Your task to perform on an android device: open app "TextNow: Call + Text Unlimited" (install if not already installed) and enter user name: "stoke@yahoo.com" and password: "prompted" Image 0: 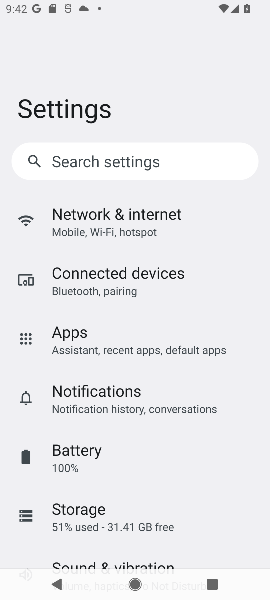
Step 0: press home button
Your task to perform on an android device: open app "TextNow: Call + Text Unlimited" (install if not already installed) and enter user name: "stoke@yahoo.com" and password: "prompted" Image 1: 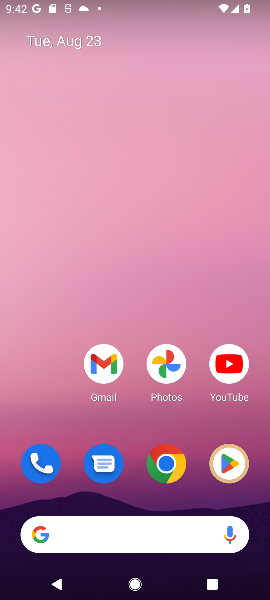
Step 1: click (225, 462)
Your task to perform on an android device: open app "TextNow: Call + Text Unlimited" (install if not already installed) and enter user name: "stoke@yahoo.com" and password: "prompted" Image 2: 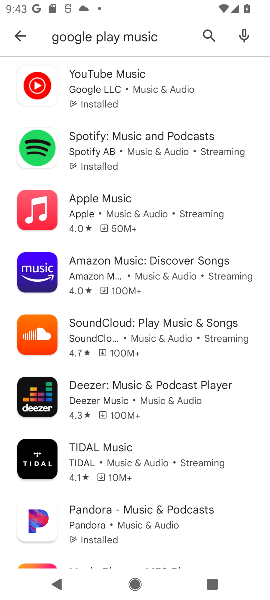
Step 2: click (198, 34)
Your task to perform on an android device: open app "TextNow: Call + Text Unlimited" (install if not already installed) and enter user name: "stoke@yahoo.com" and password: "prompted" Image 3: 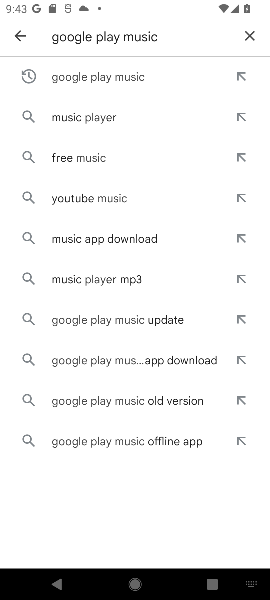
Step 3: click (245, 36)
Your task to perform on an android device: open app "TextNow: Call + Text Unlimited" (install if not already installed) and enter user name: "stoke@yahoo.com" and password: "prompted" Image 4: 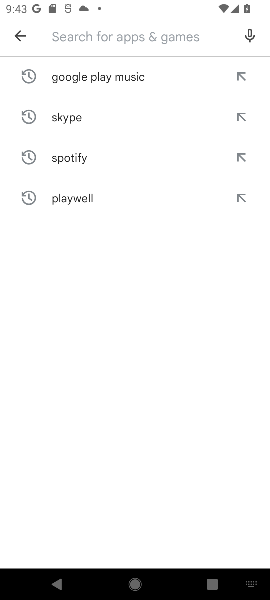
Step 4: type "TextNow: Call + Text Unlimited"
Your task to perform on an android device: open app "TextNow: Call + Text Unlimited" (install if not already installed) and enter user name: "stoke@yahoo.com" and password: "prompted" Image 5: 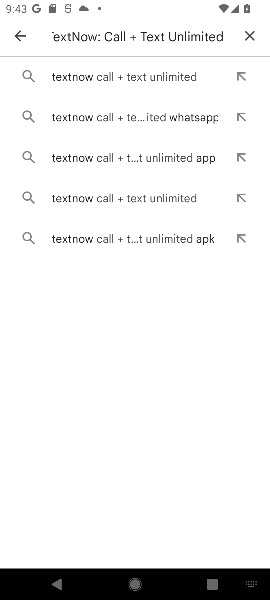
Step 5: click (92, 75)
Your task to perform on an android device: open app "TextNow: Call + Text Unlimited" (install if not already installed) and enter user name: "stoke@yahoo.com" and password: "prompted" Image 6: 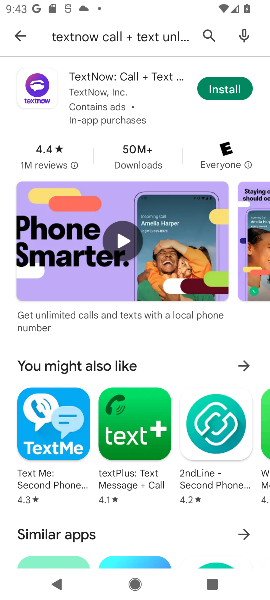
Step 6: click (222, 85)
Your task to perform on an android device: open app "TextNow: Call + Text Unlimited" (install if not already installed) and enter user name: "stoke@yahoo.com" and password: "prompted" Image 7: 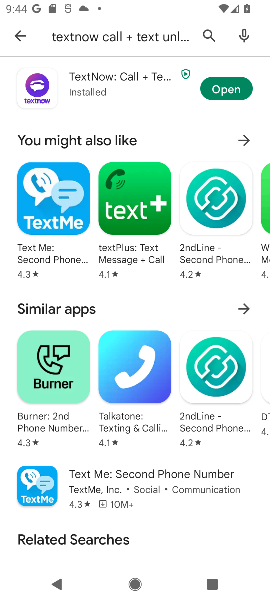
Step 7: click (229, 84)
Your task to perform on an android device: open app "TextNow: Call + Text Unlimited" (install if not already installed) and enter user name: "stoke@yahoo.com" and password: "prompted" Image 8: 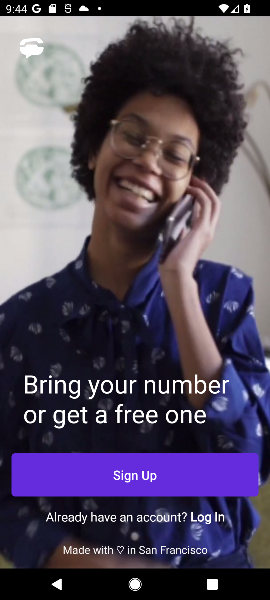
Step 8: click (205, 511)
Your task to perform on an android device: open app "TextNow: Call + Text Unlimited" (install if not already installed) and enter user name: "stoke@yahoo.com" and password: "prompted" Image 9: 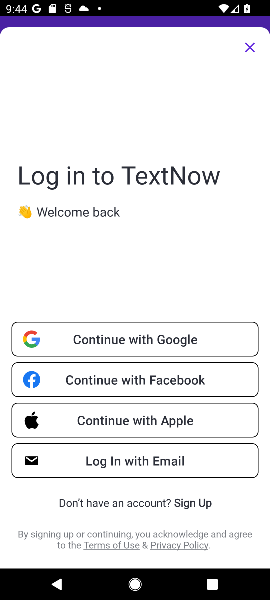
Step 9: click (150, 461)
Your task to perform on an android device: open app "TextNow: Call + Text Unlimited" (install if not already installed) and enter user name: "stoke@yahoo.com" and password: "prompted" Image 10: 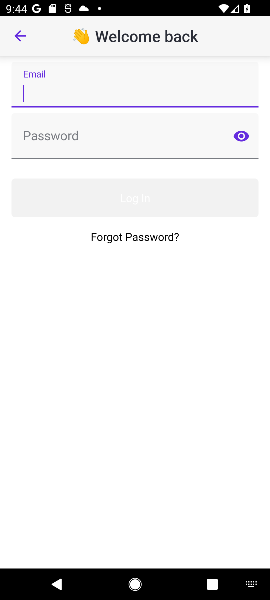
Step 10: type "stoke@yahoo.com"
Your task to perform on an android device: open app "TextNow: Call + Text Unlimited" (install if not already installed) and enter user name: "stoke@yahoo.com" and password: "prompted" Image 11: 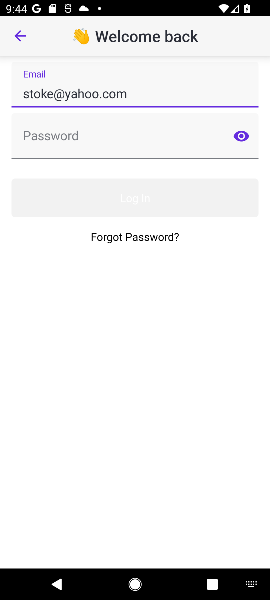
Step 11: click (69, 139)
Your task to perform on an android device: open app "TextNow: Call + Text Unlimited" (install if not already installed) and enter user name: "stoke@yahoo.com" and password: "prompted" Image 12: 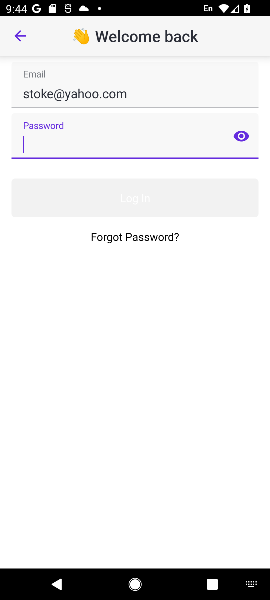
Step 12: type "prompted"
Your task to perform on an android device: open app "TextNow: Call + Text Unlimited" (install if not already installed) and enter user name: "stoke@yahoo.com" and password: "prompted" Image 13: 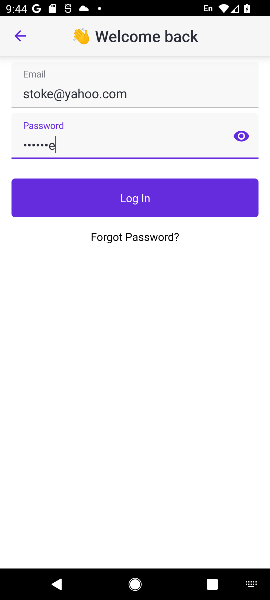
Step 13: type ""
Your task to perform on an android device: open app "TextNow: Call + Text Unlimited" (install if not already installed) and enter user name: "stoke@yahoo.com" and password: "prompted" Image 14: 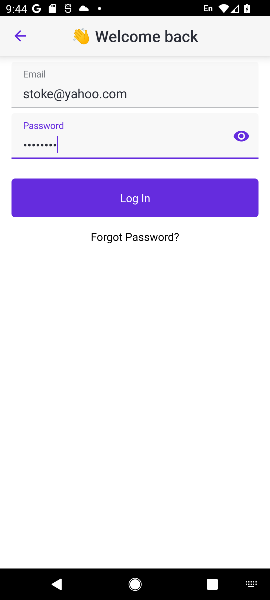
Step 14: click (138, 200)
Your task to perform on an android device: open app "TextNow: Call + Text Unlimited" (install if not already installed) and enter user name: "stoke@yahoo.com" and password: "prompted" Image 15: 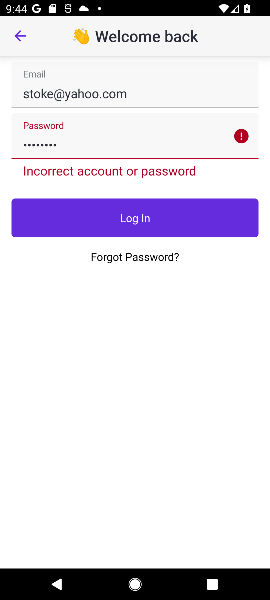
Step 15: task complete